Your task to perform on an android device: Go to battery settings Image 0: 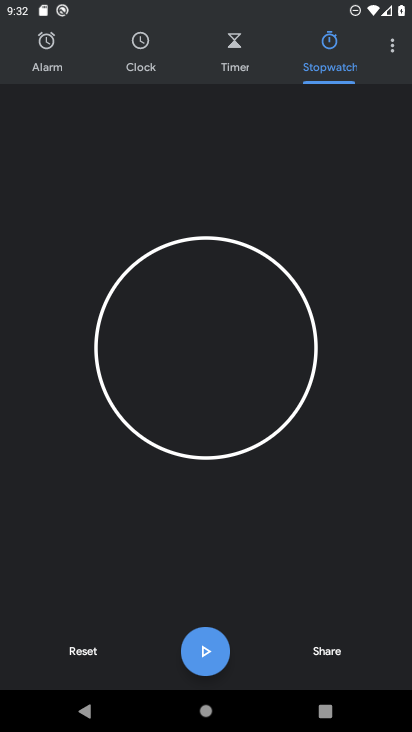
Step 0: press home button
Your task to perform on an android device: Go to battery settings Image 1: 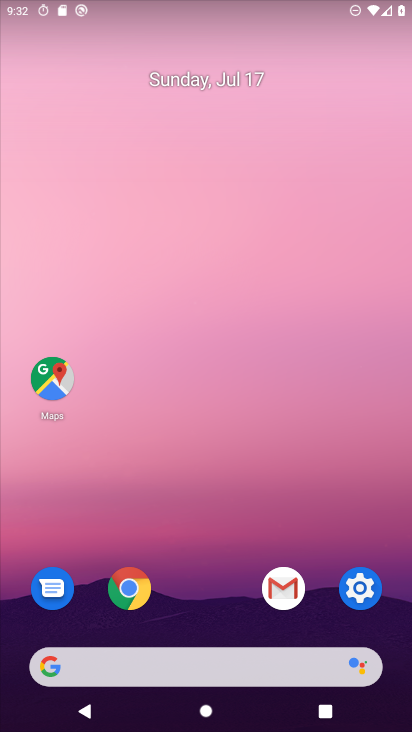
Step 1: click (360, 581)
Your task to perform on an android device: Go to battery settings Image 2: 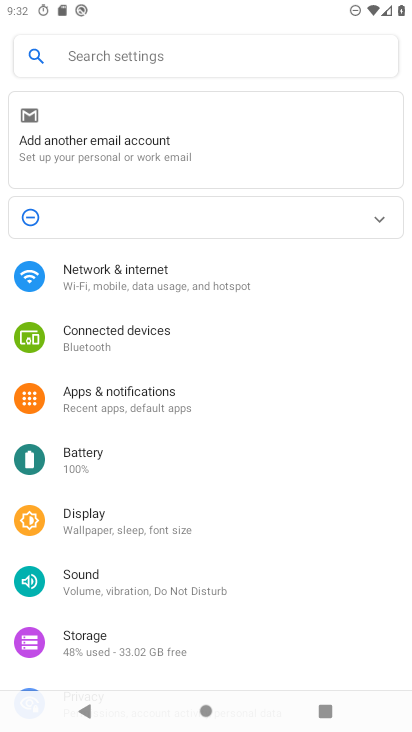
Step 2: click (117, 477)
Your task to perform on an android device: Go to battery settings Image 3: 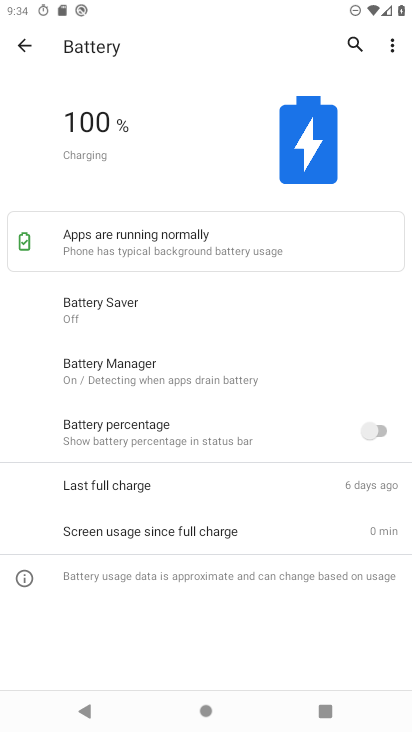
Step 3: task complete